Your task to perform on an android device: Toggle the flashlight Image 0: 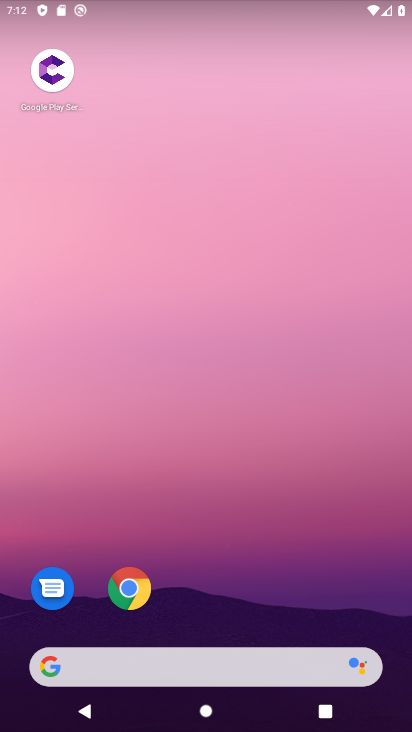
Step 0: task impossible